Your task to perform on an android device: delete the emails in spam in the gmail app Image 0: 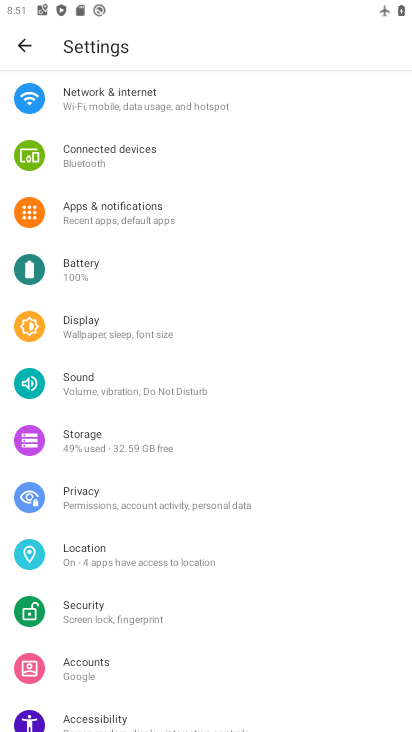
Step 0: press home button
Your task to perform on an android device: delete the emails in spam in the gmail app Image 1: 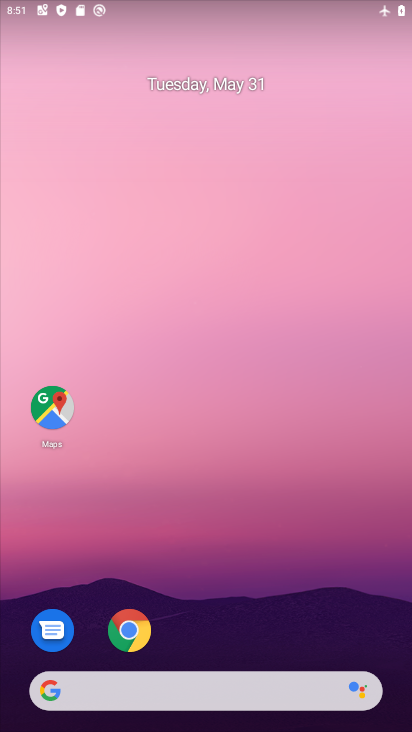
Step 1: drag from (297, 588) to (352, 172)
Your task to perform on an android device: delete the emails in spam in the gmail app Image 2: 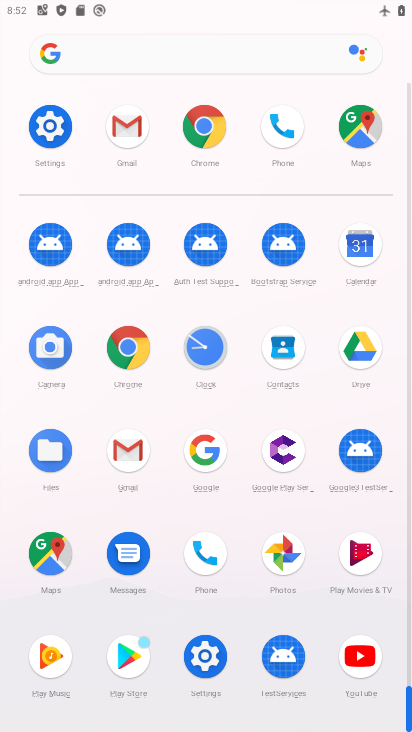
Step 2: click (122, 443)
Your task to perform on an android device: delete the emails in spam in the gmail app Image 3: 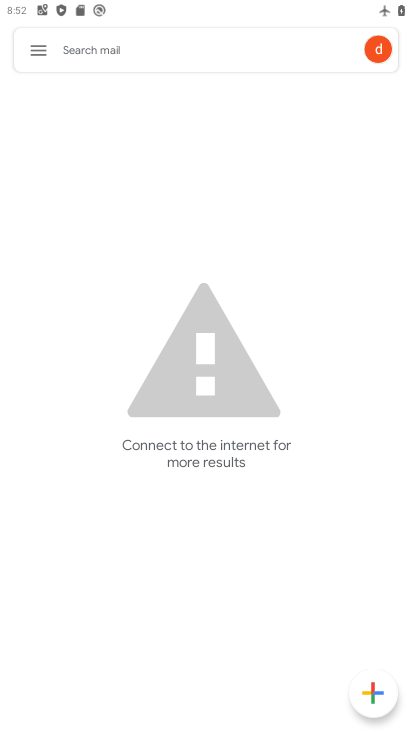
Step 3: click (47, 43)
Your task to perform on an android device: delete the emails in spam in the gmail app Image 4: 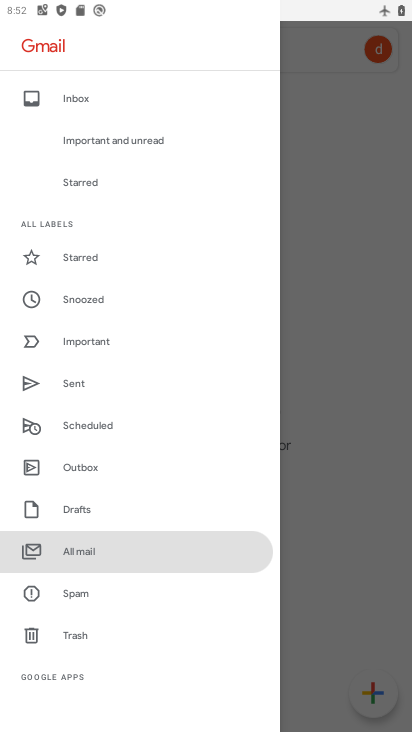
Step 4: drag from (78, 564) to (144, 361)
Your task to perform on an android device: delete the emails in spam in the gmail app Image 5: 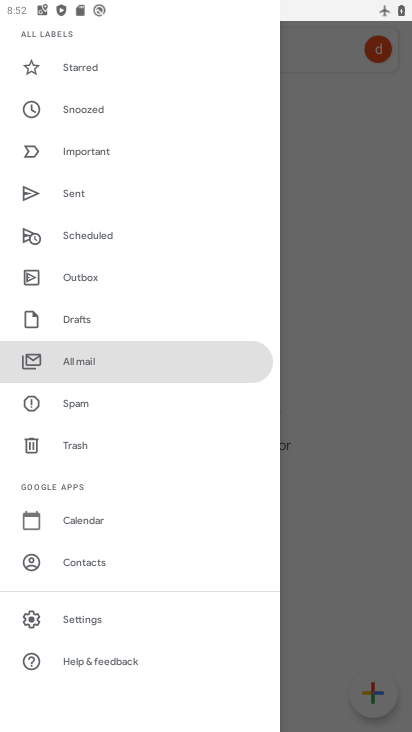
Step 5: click (76, 410)
Your task to perform on an android device: delete the emails in spam in the gmail app Image 6: 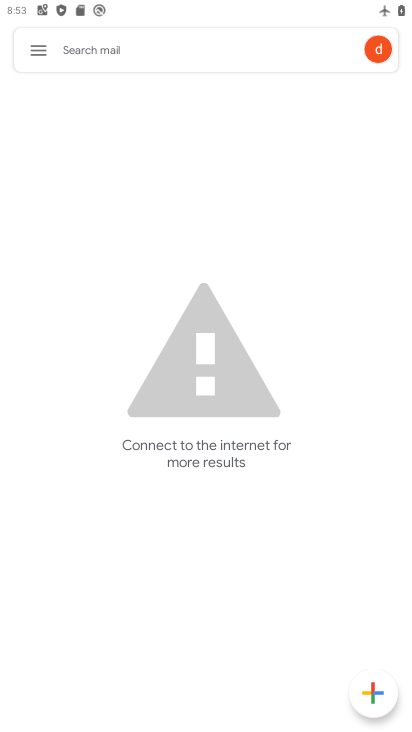
Step 6: task complete